Your task to perform on an android device: turn off priority inbox in the gmail app Image 0: 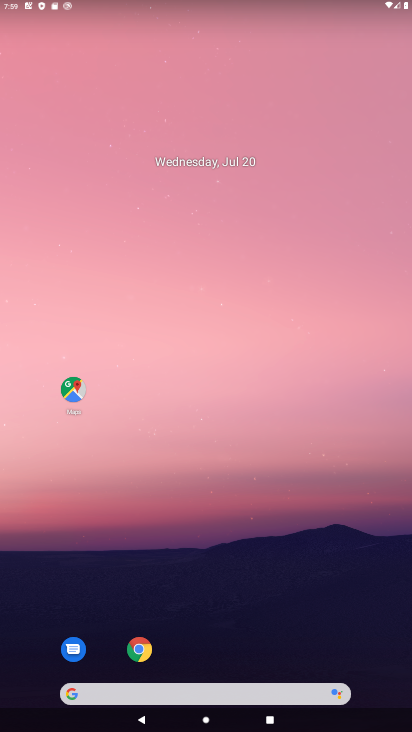
Step 0: drag from (199, 694) to (262, 85)
Your task to perform on an android device: turn off priority inbox in the gmail app Image 1: 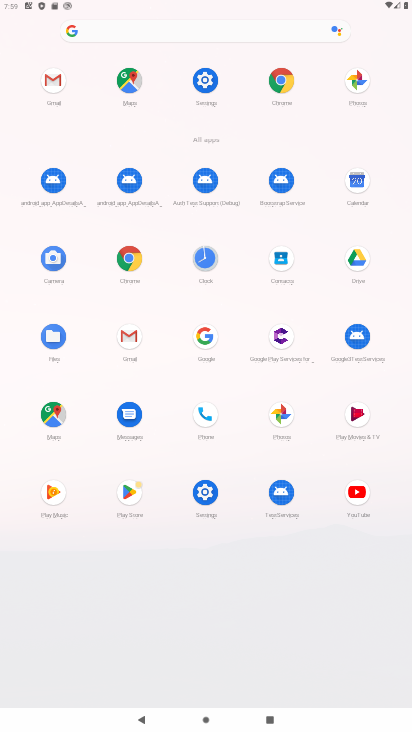
Step 1: click (52, 80)
Your task to perform on an android device: turn off priority inbox in the gmail app Image 2: 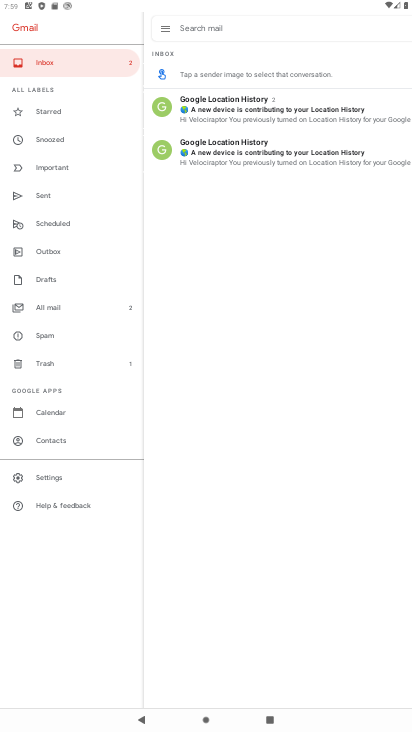
Step 2: click (44, 480)
Your task to perform on an android device: turn off priority inbox in the gmail app Image 3: 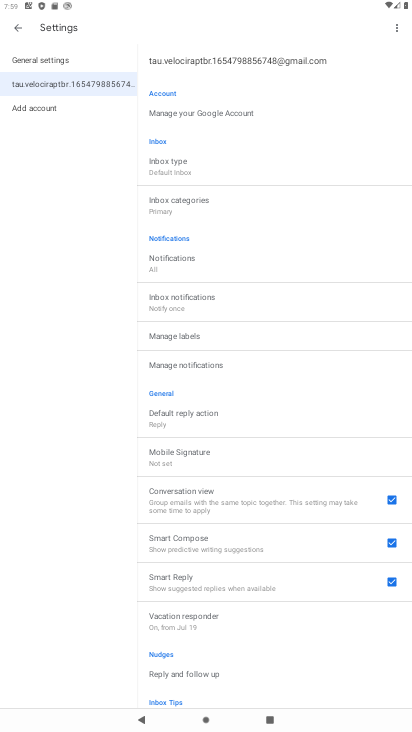
Step 3: click (185, 176)
Your task to perform on an android device: turn off priority inbox in the gmail app Image 4: 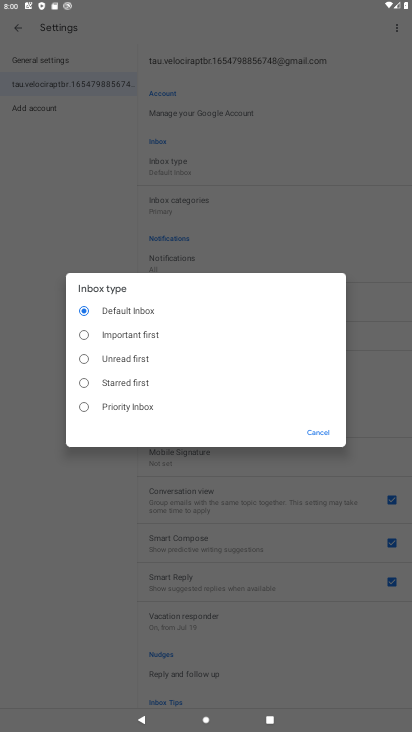
Step 4: click (80, 312)
Your task to perform on an android device: turn off priority inbox in the gmail app Image 5: 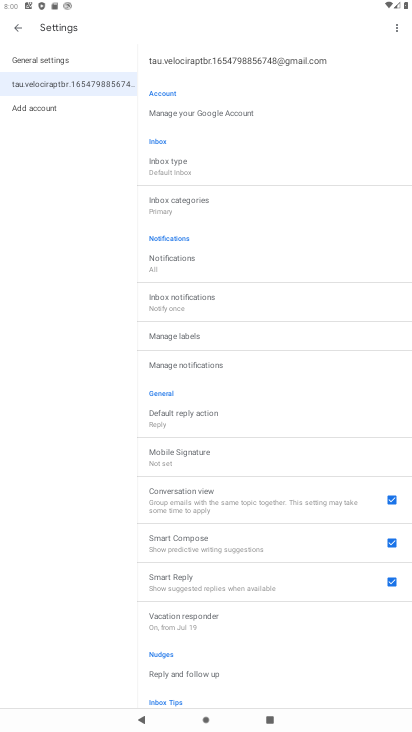
Step 5: task complete